Your task to perform on an android device: Go to Reddit.com Image 0: 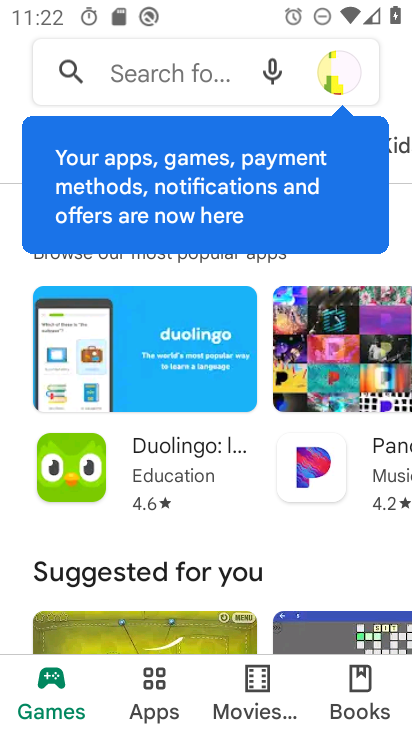
Step 0: press home button
Your task to perform on an android device: Go to Reddit.com Image 1: 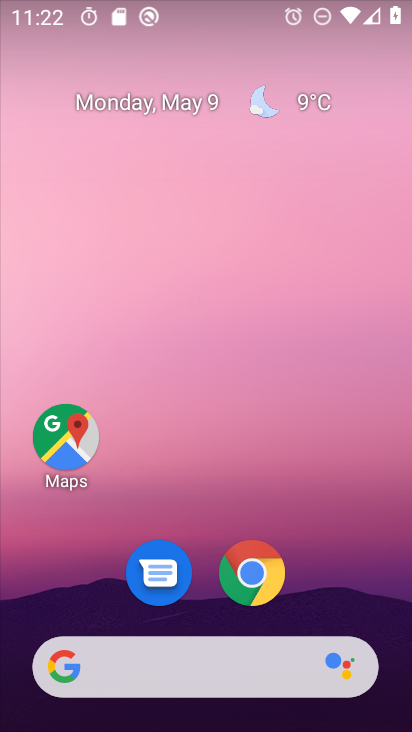
Step 1: click (258, 578)
Your task to perform on an android device: Go to Reddit.com Image 2: 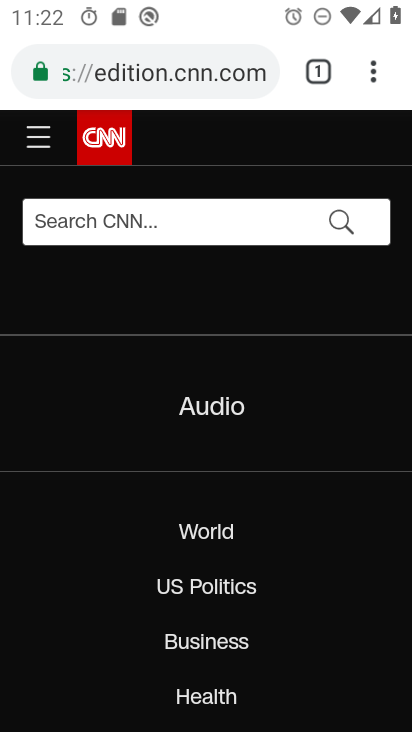
Step 2: click (177, 86)
Your task to perform on an android device: Go to Reddit.com Image 3: 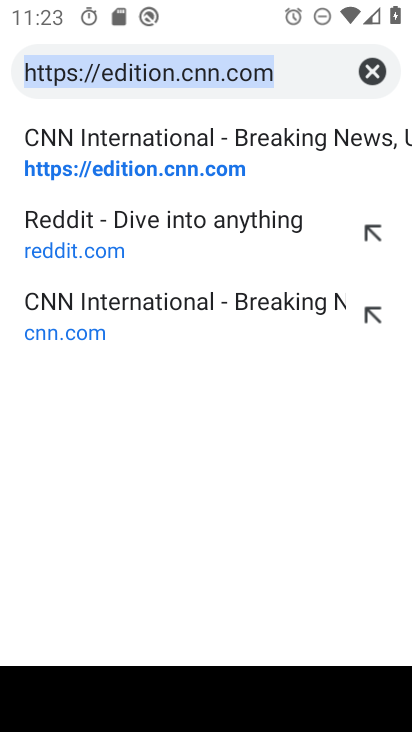
Step 3: type "reddit.com"
Your task to perform on an android device: Go to Reddit.com Image 4: 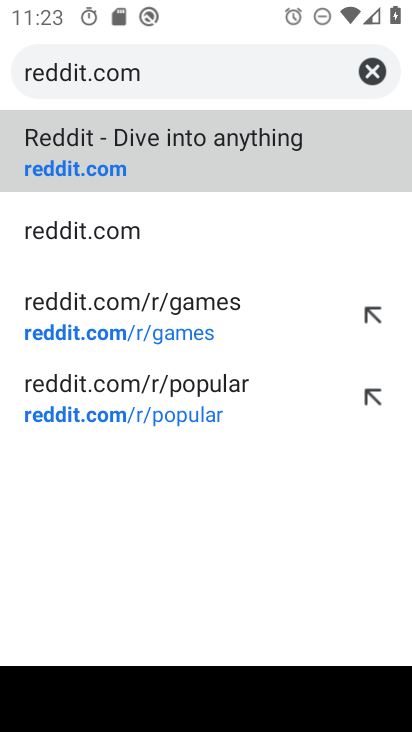
Step 4: click (115, 170)
Your task to perform on an android device: Go to Reddit.com Image 5: 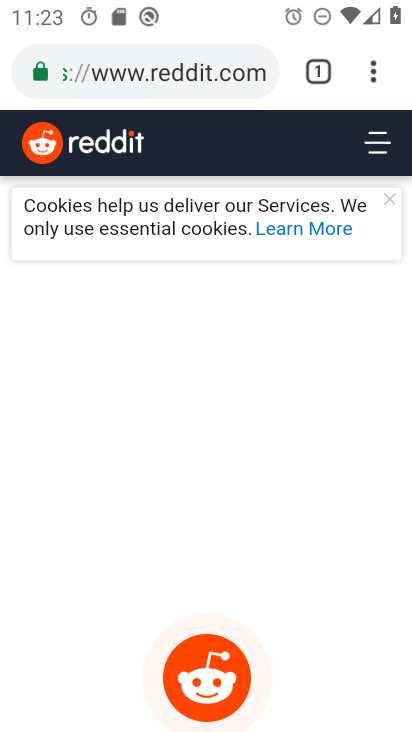
Step 5: task complete